Your task to perform on an android device: stop showing notifications on the lock screen Image 0: 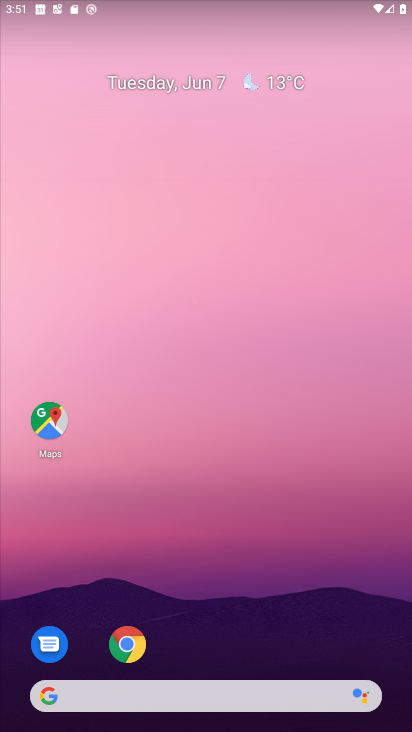
Step 0: drag from (360, 630) to (369, 237)
Your task to perform on an android device: stop showing notifications on the lock screen Image 1: 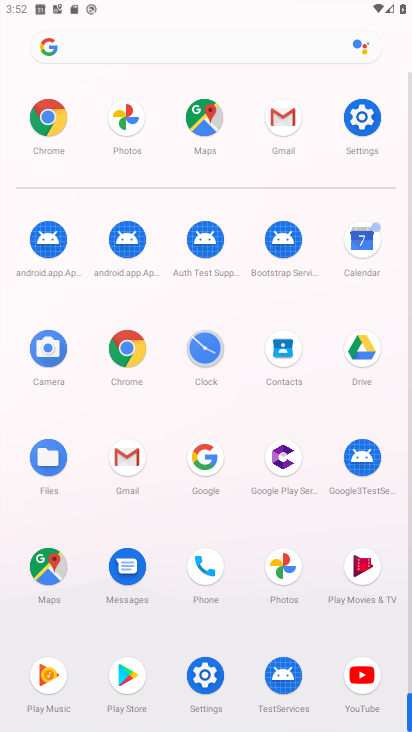
Step 1: click (360, 128)
Your task to perform on an android device: stop showing notifications on the lock screen Image 2: 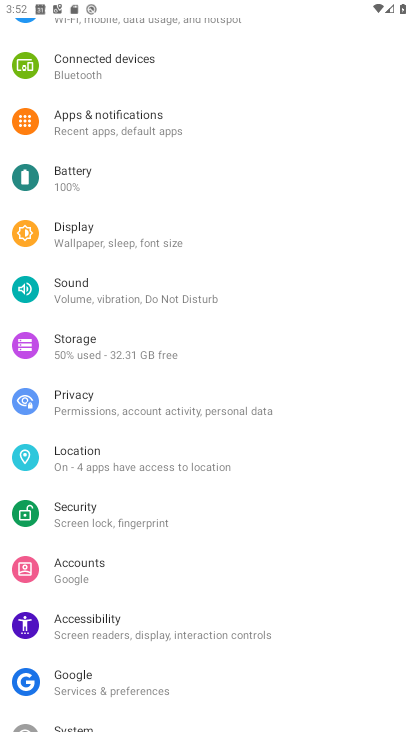
Step 2: drag from (307, 327) to (324, 421)
Your task to perform on an android device: stop showing notifications on the lock screen Image 3: 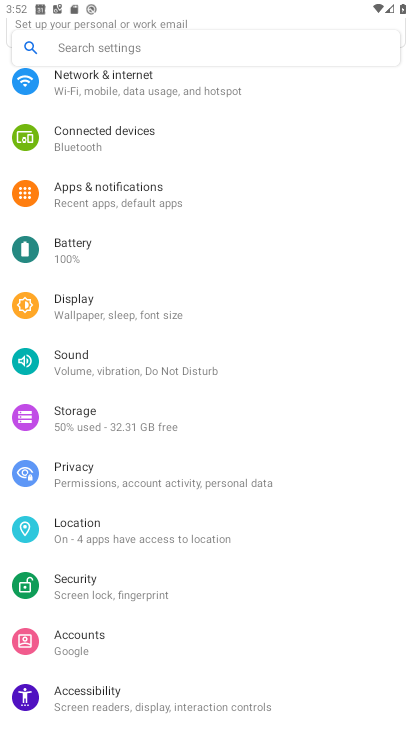
Step 3: drag from (325, 260) to (354, 425)
Your task to perform on an android device: stop showing notifications on the lock screen Image 4: 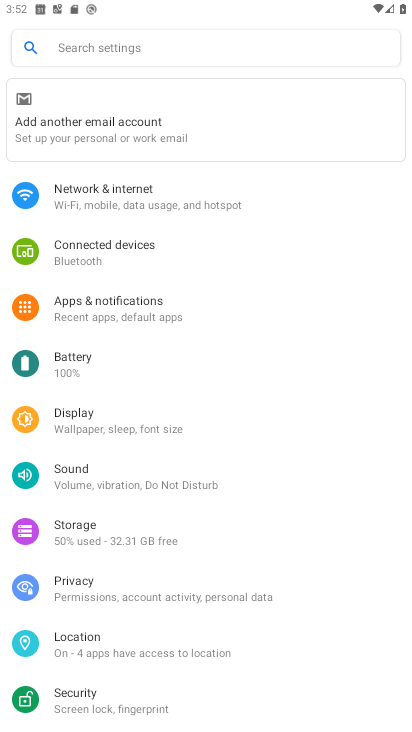
Step 4: drag from (321, 252) to (321, 399)
Your task to perform on an android device: stop showing notifications on the lock screen Image 5: 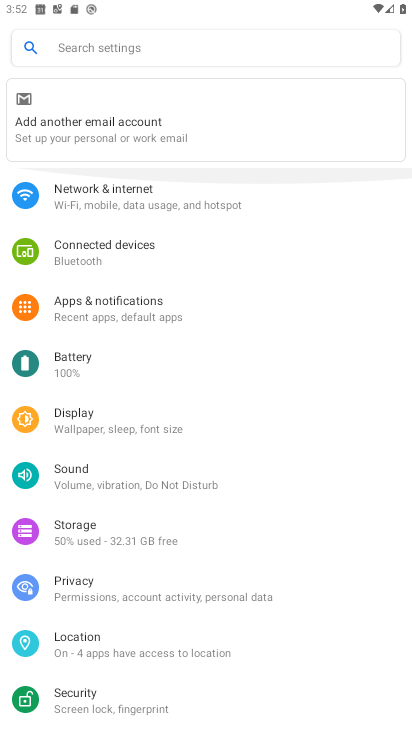
Step 5: click (149, 309)
Your task to perform on an android device: stop showing notifications on the lock screen Image 6: 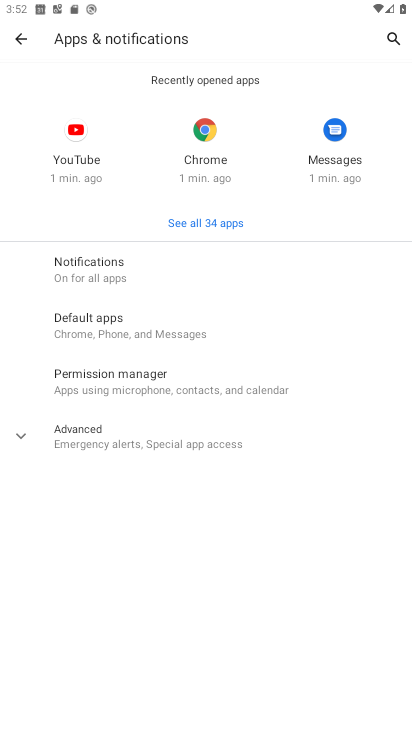
Step 6: click (135, 268)
Your task to perform on an android device: stop showing notifications on the lock screen Image 7: 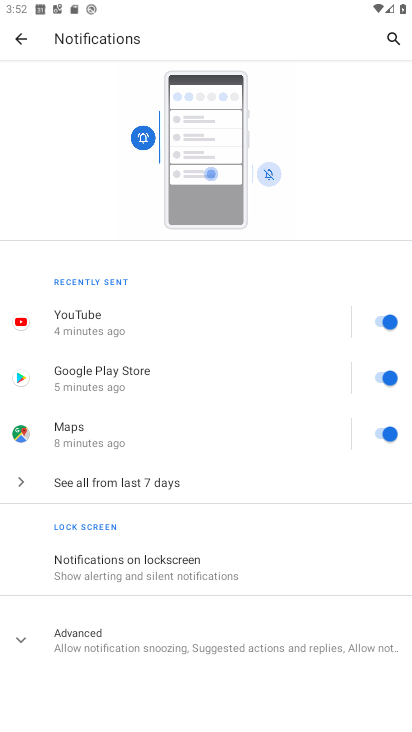
Step 7: click (201, 576)
Your task to perform on an android device: stop showing notifications on the lock screen Image 8: 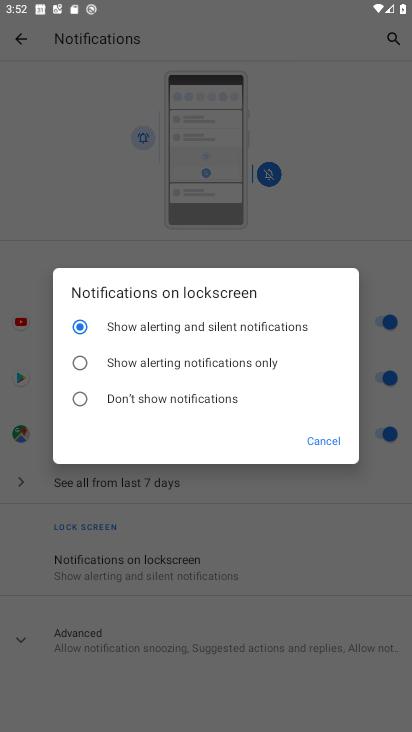
Step 8: click (175, 400)
Your task to perform on an android device: stop showing notifications on the lock screen Image 9: 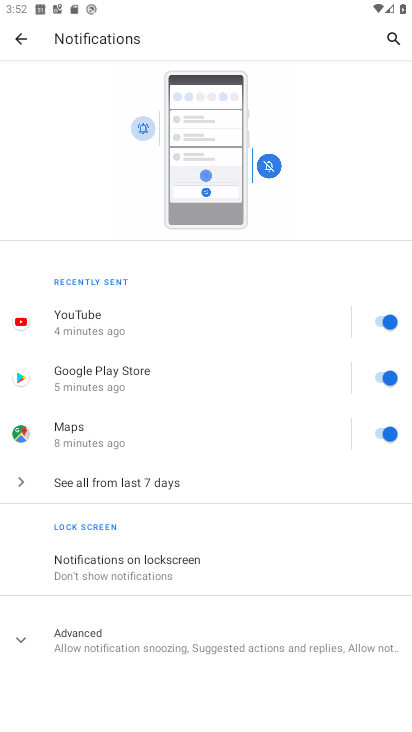
Step 9: task complete